Your task to perform on an android device: uninstall "Google Keep" Image 0: 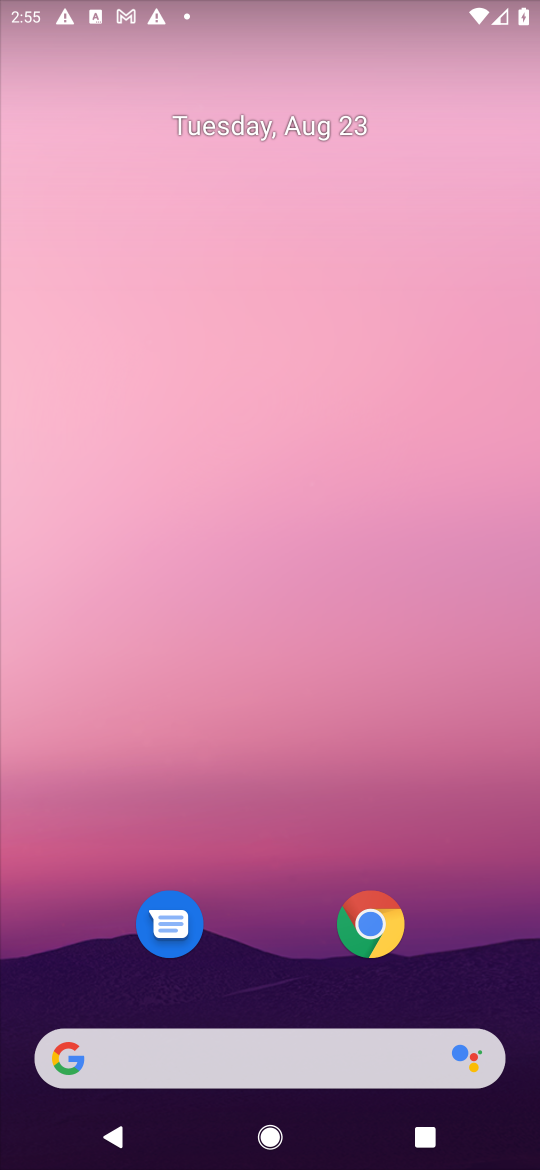
Step 0: press home button
Your task to perform on an android device: uninstall "Google Keep" Image 1: 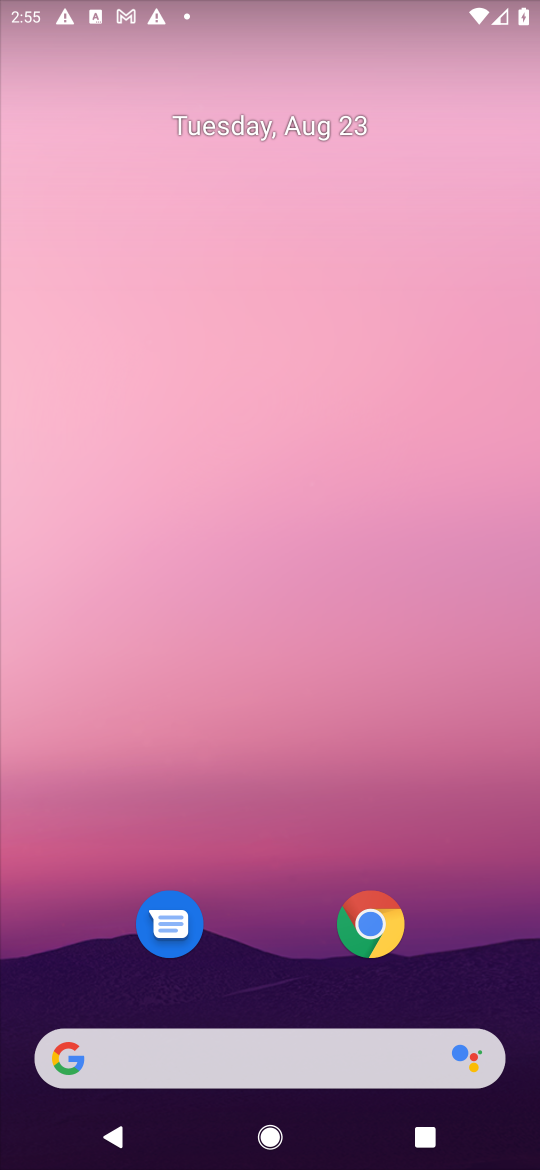
Step 1: drag from (452, 918) to (378, 156)
Your task to perform on an android device: uninstall "Google Keep" Image 2: 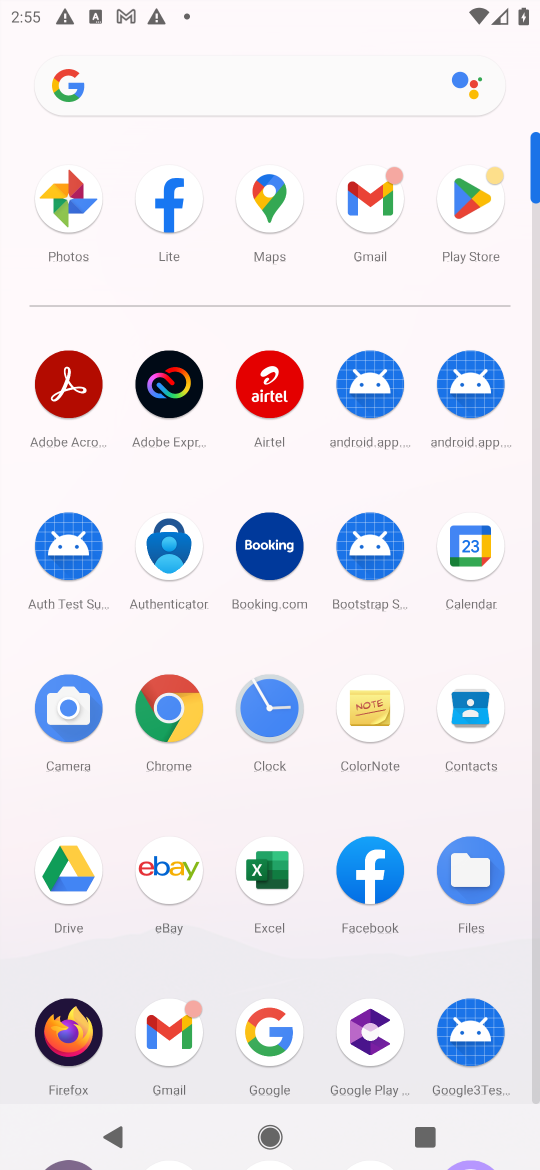
Step 2: click (466, 196)
Your task to perform on an android device: uninstall "Google Keep" Image 3: 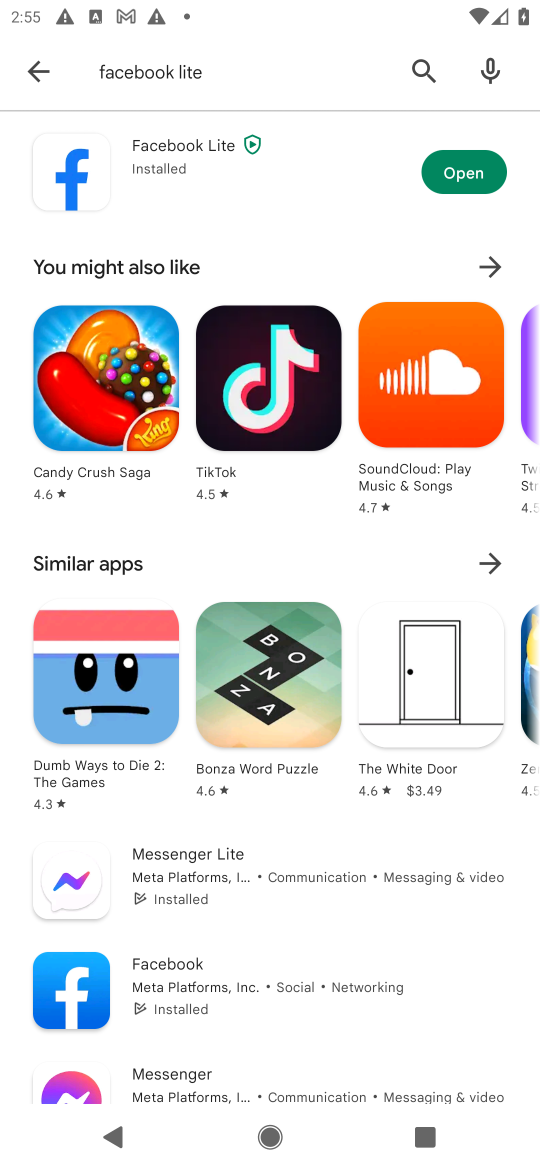
Step 3: press back button
Your task to perform on an android device: uninstall "Google Keep" Image 4: 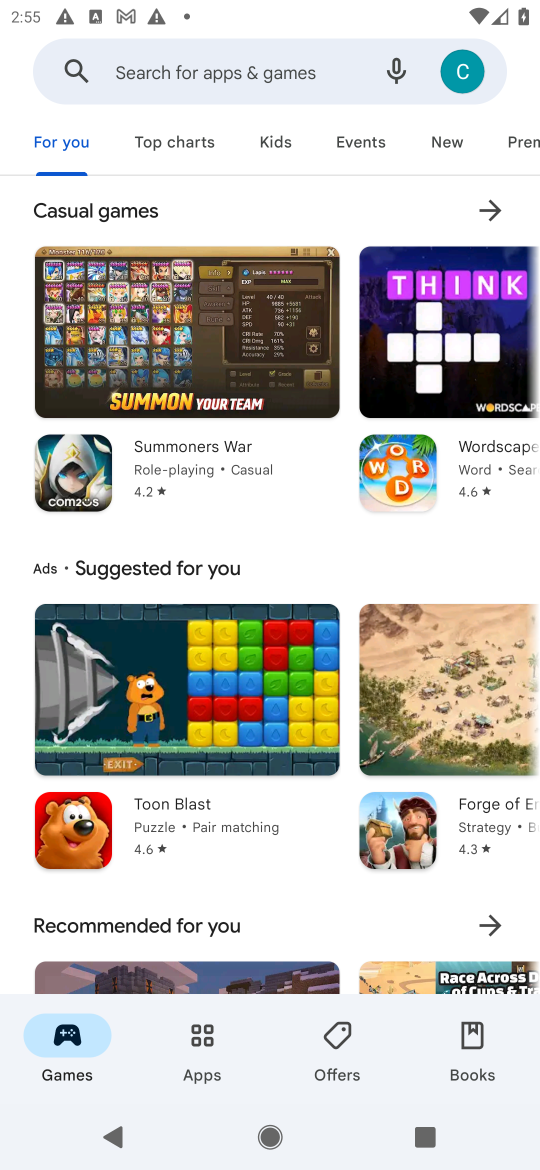
Step 4: click (269, 68)
Your task to perform on an android device: uninstall "Google Keep" Image 5: 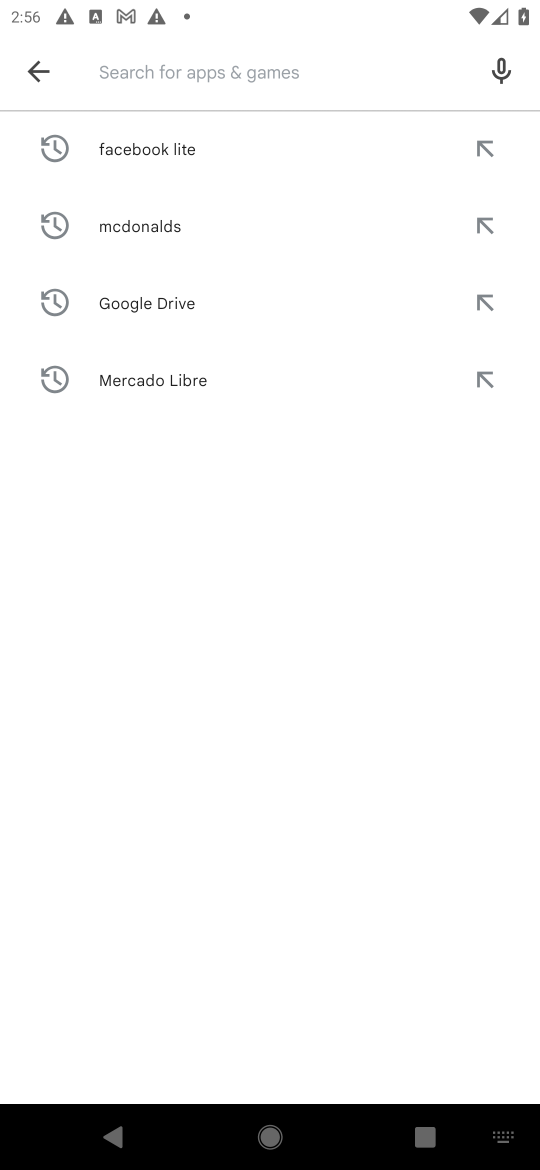
Step 5: press enter
Your task to perform on an android device: uninstall "Google Keep" Image 6: 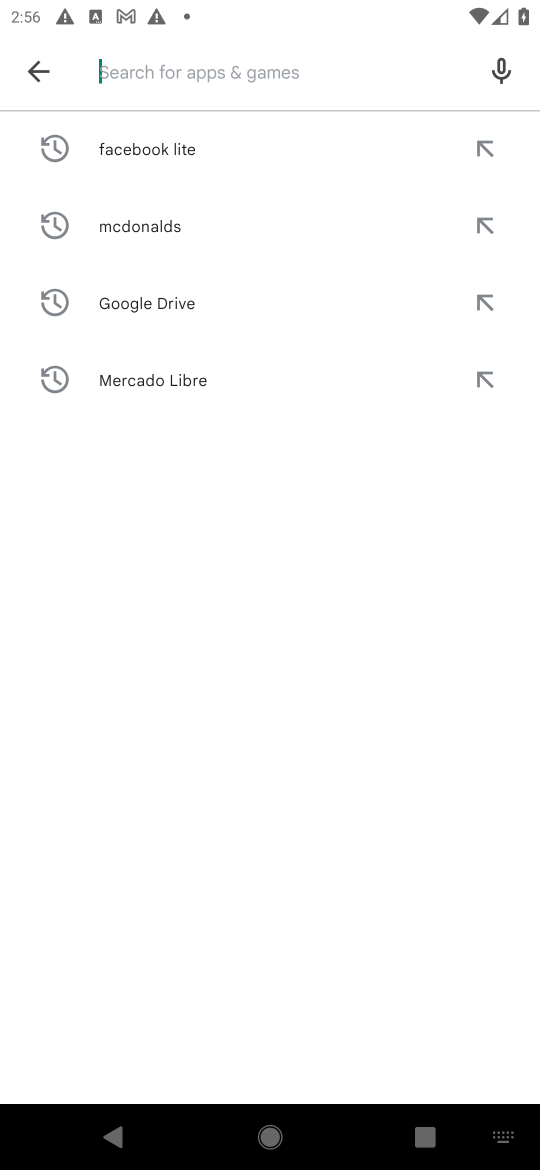
Step 6: type "google keep"
Your task to perform on an android device: uninstall "Google Keep" Image 7: 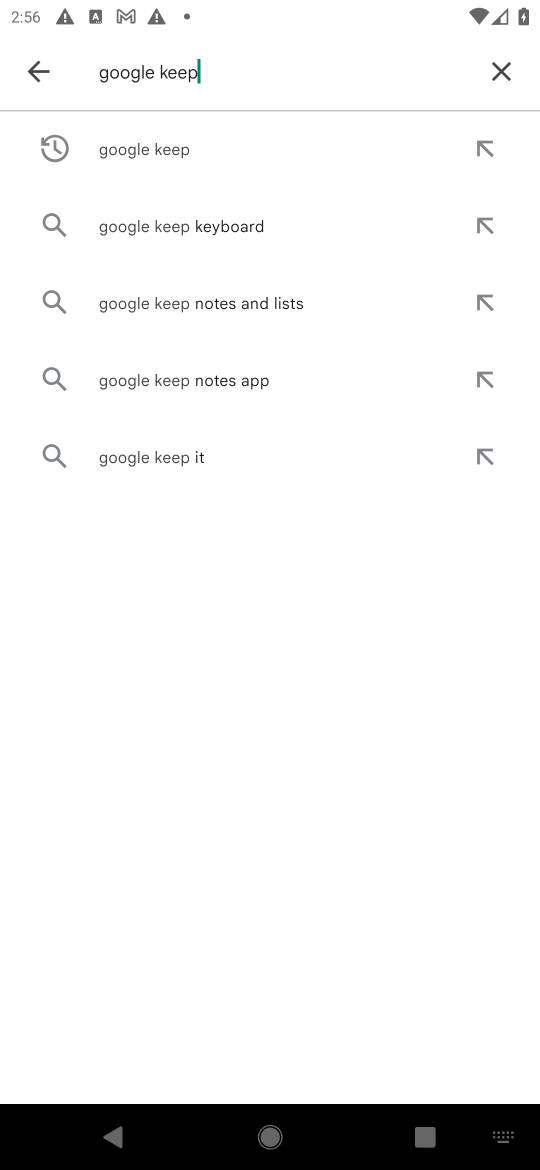
Step 7: click (169, 136)
Your task to perform on an android device: uninstall "Google Keep" Image 8: 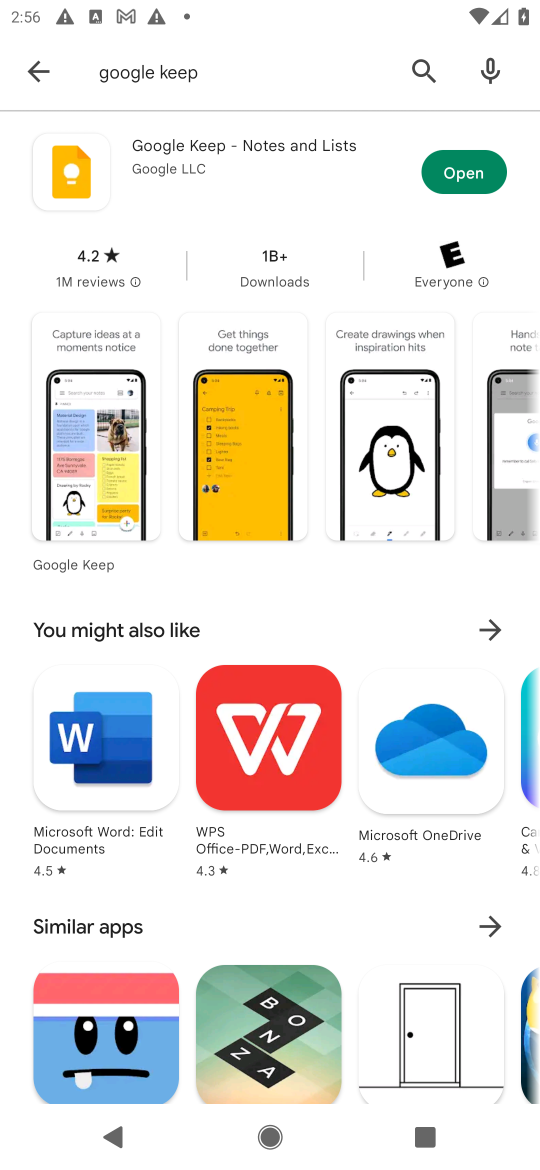
Step 8: task complete